Your task to perform on an android device: set the timer Image 0: 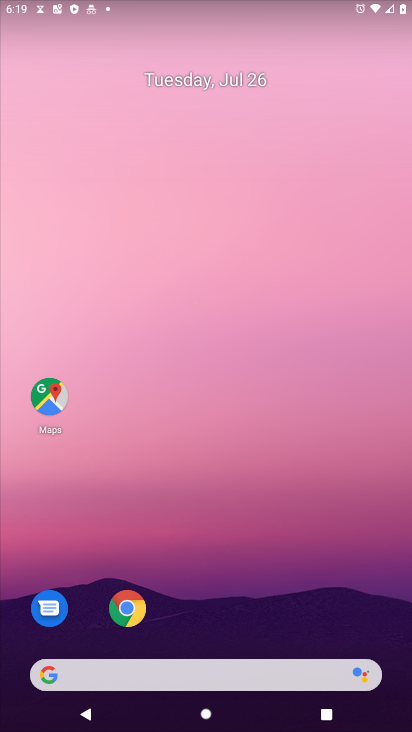
Step 0: press home button
Your task to perform on an android device: set the timer Image 1: 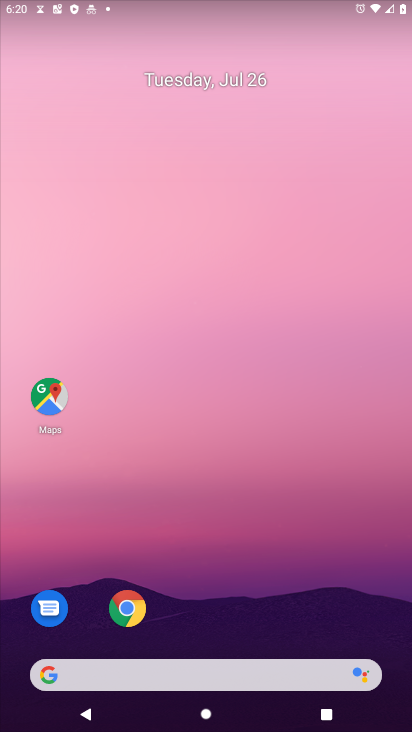
Step 1: drag from (186, 411) to (290, 578)
Your task to perform on an android device: set the timer Image 2: 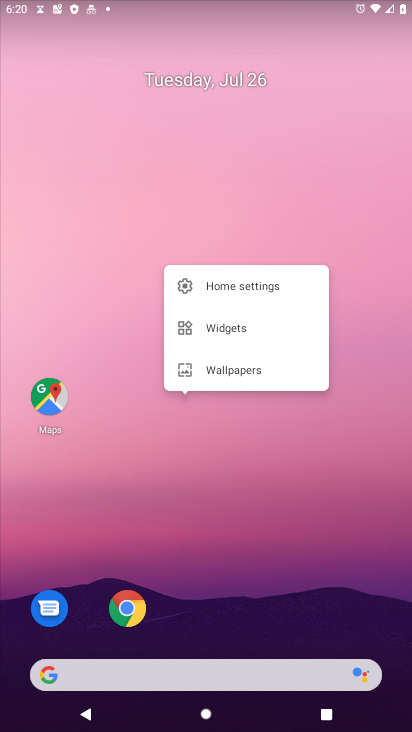
Step 2: click (244, 611)
Your task to perform on an android device: set the timer Image 3: 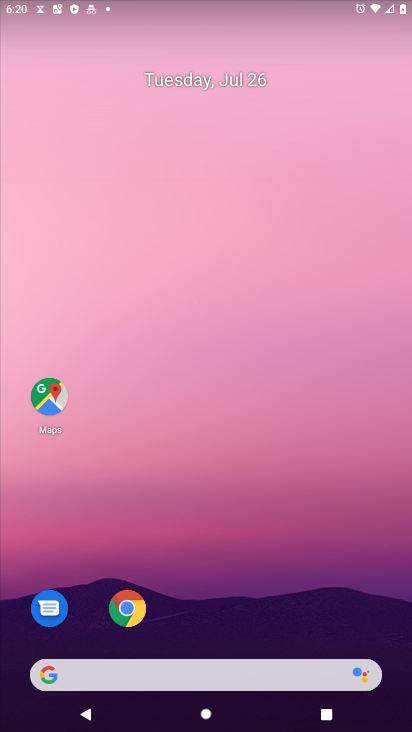
Step 3: drag from (255, 616) to (208, 186)
Your task to perform on an android device: set the timer Image 4: 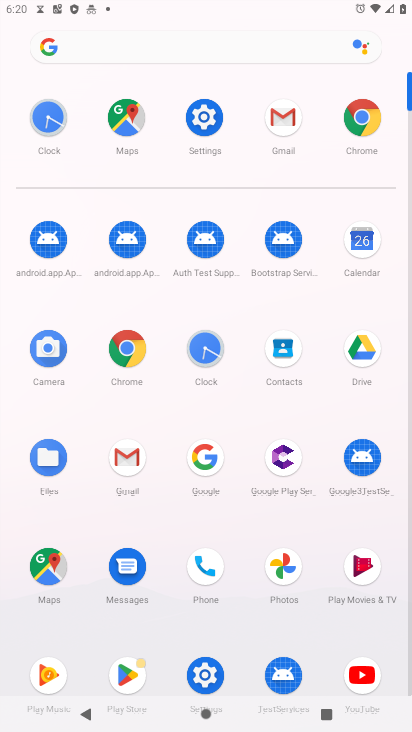
Step 4: click (207, 341)
Your task to perform on an android device: set the timer Image 5: 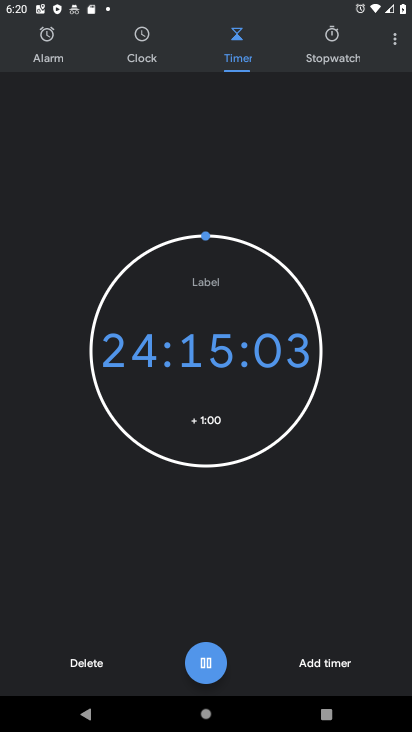
Step 5: task complete